Your task to perform on an android device: turn smart compose on in the gmail app Image 0: 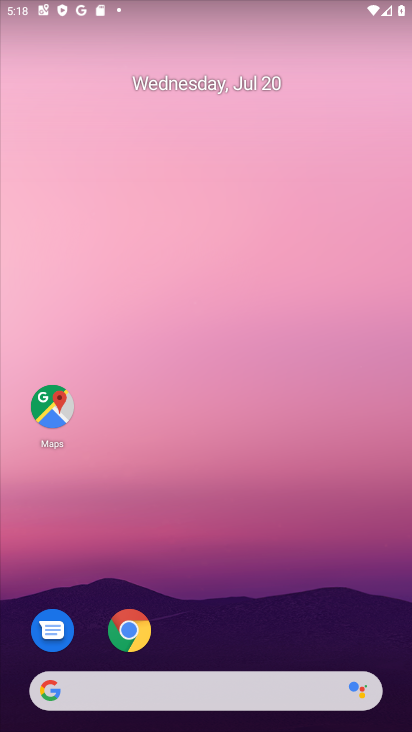
Step 0: drag from (160, 695) to (249, 126)
Your task to perform on an android device: turn smart compose on in the gmail app Image 1: 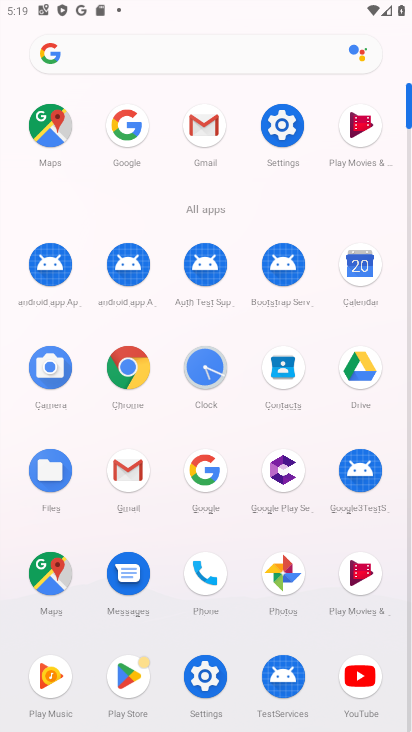
Step 1: click (204, 122)
Your task to perform on an android device: turn smart compose on in the gmail app Image 2: 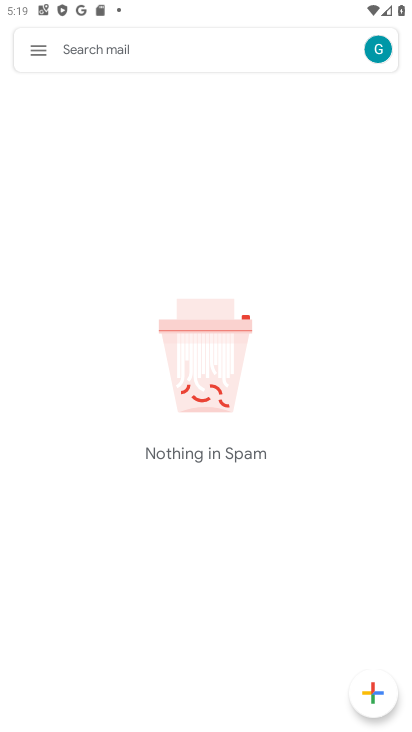
Step 2: click (40, 46)
Your task to perform on an android device: turn smart compose on in the gmail app Image 3: 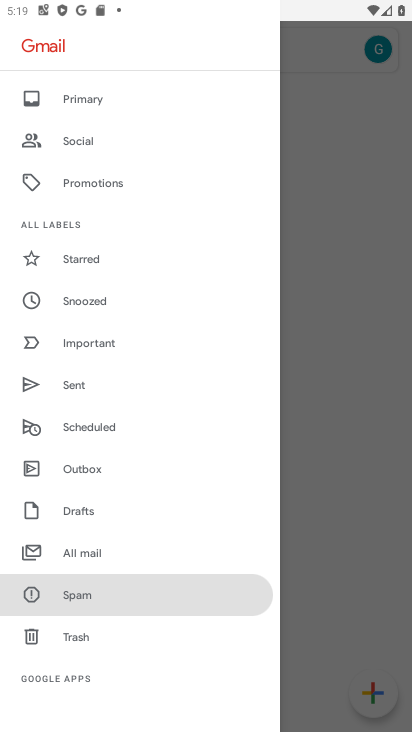
Step 3: drag from (66, 536) to (89, 336)
Your task to perform on an android device: turn smart compose on in the gmail app Image 4: 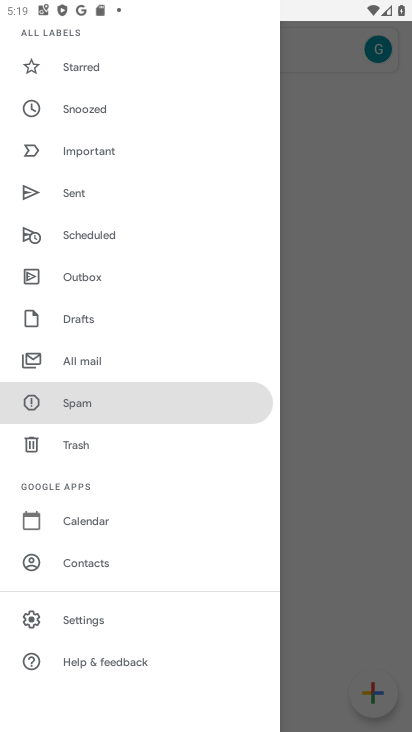
Step 4: click (98, 618)
Your task to perform on an android device: turn smart compose on in the gmail app Image 5: 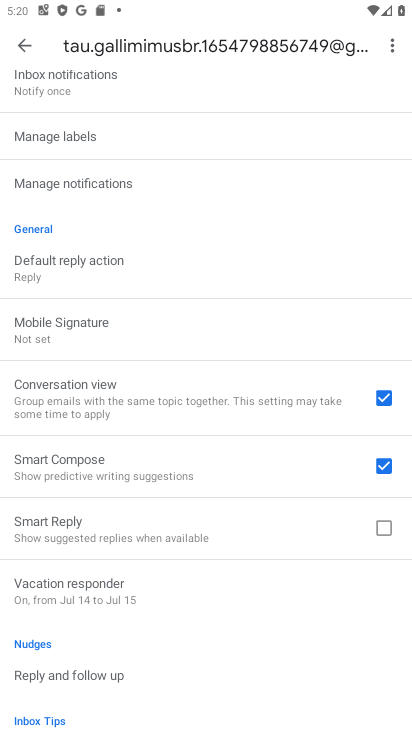
Step 5: task complete